Your task to perform on an android device: Search for the new nike air max shoes on Nike. Image 0: 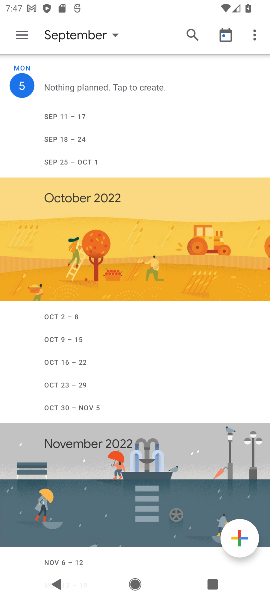
Step 0: press home button
Your task to perform on an android device: Search for the new nike air max shoes on Nike. Image 1: 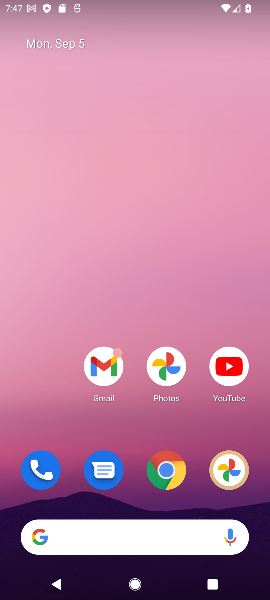
Step 1: drag from (146, 389) to (140, 65)
Your task to perform on an android device: Search for the new nike air max shoes on Nike. Image 2: 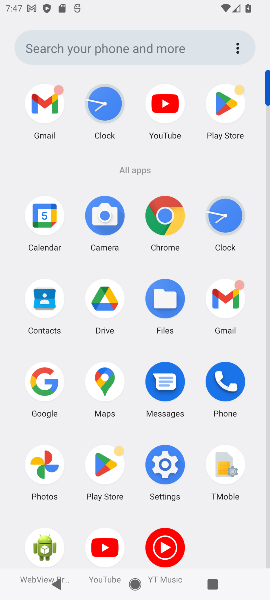
Step 2: click (156, 240)
Your task to perform on an android device: Search for the new nike air max shoes on Nike. Image 3: 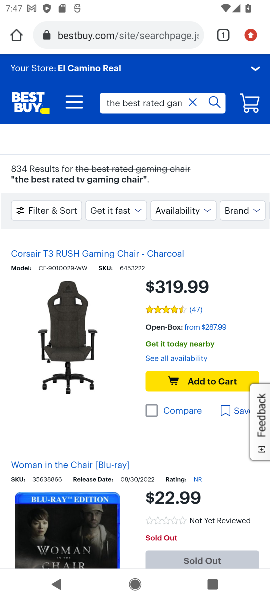
Step 3: click (223, 34)
Your task to perform on an android device: Search for the new nike air max shoes on Nike. Image 4: 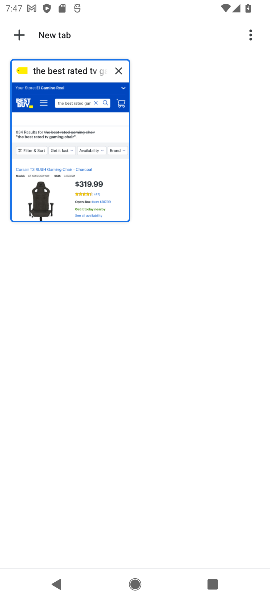
Step 4: click (16, 36)
Your task to perform on an android device: Search for the new nike air max shoes on Nike. Image 5: 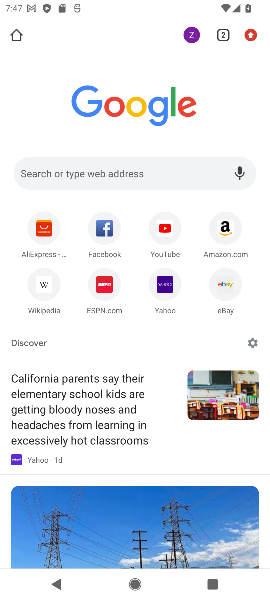
Step 5: click (100, 167)
Your task to perform on an android device: Search for the new nike air max shoes on Nike. Image 6: 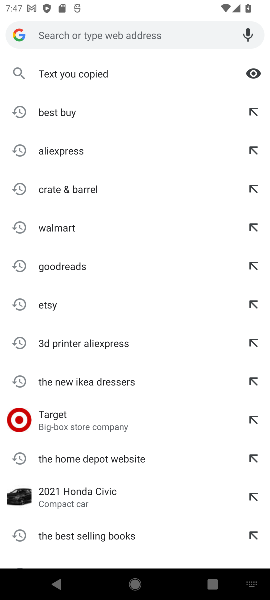
Step 6: type "Nike"
Your task to perform on an android device: Search for the new nike air max shoes on Nike. Image 7: 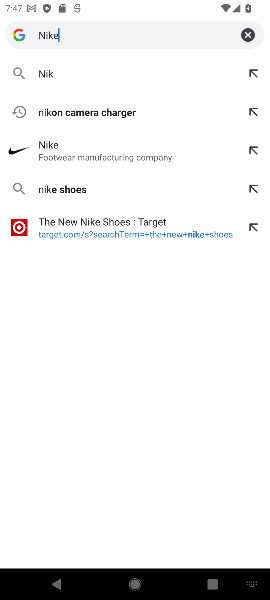
Step 7: type ""
Your task to perform on an android device: Search for the new nike air max shoes on Nike. Image 8: 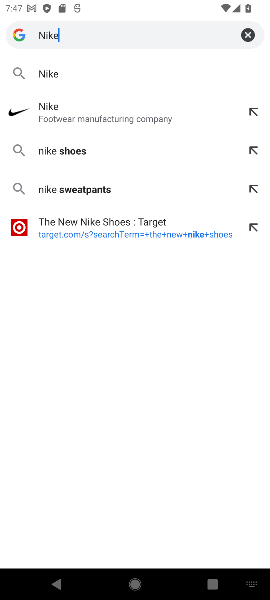
Step 8: click (47, 62)
Your task to perform on an android device: Search for the new nike air max shoes on Nike. Image 9: 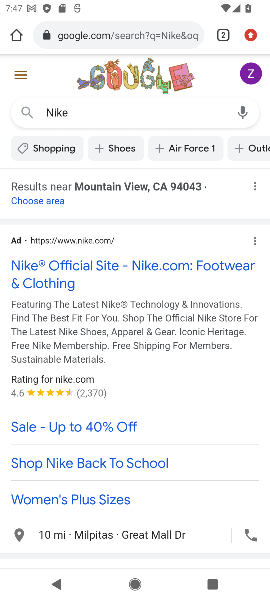
Step 9: click (59, 277)
Your task to perform on an android device: Search for the new nike air max shoes on Nike. Image 10: 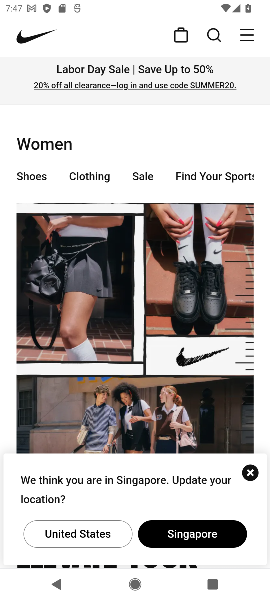
Step 10: click (251, 477)
Your task to perform on an android device: Search for the new nike air max shoes on Nike. Image 11: 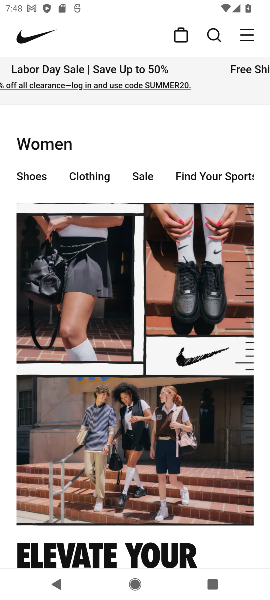
Step 11: click (208, 38)
Your task to perform on an android device: Search for the new nike air max shoes on Nike. Image 12: 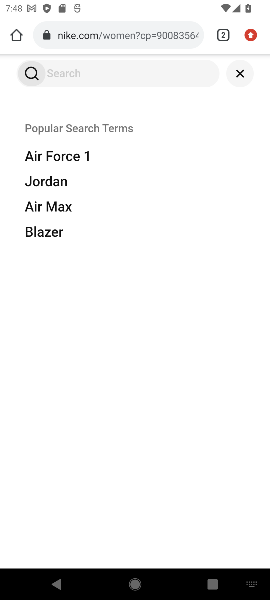
Step 12: type "the new nike air max shoes"
Your task to perform on an android device: Search for the new nike air max shoes on Nike. Image 13: 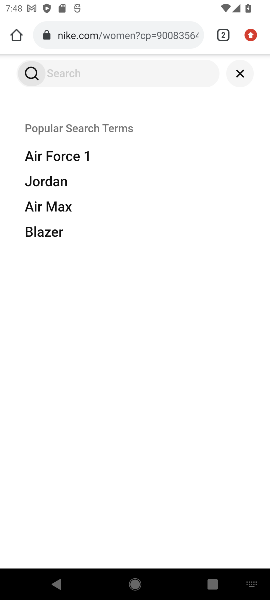
Step 13: type ""
Your task to perform on an android device: Search for the new nike air max shoes on Nike. Image 14: 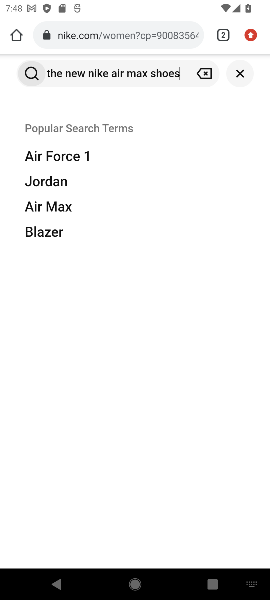
Step 14: click (26, 75)
Your task to perform on an android device: Search for the new nike air max shoes on Nike. Image 15: 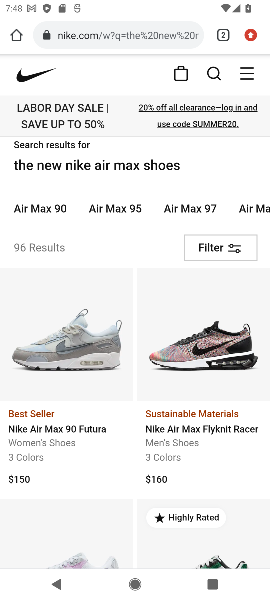
Step 15: task complete